Your task to perform on an android device: turn off translation in the chrome app Image 0: 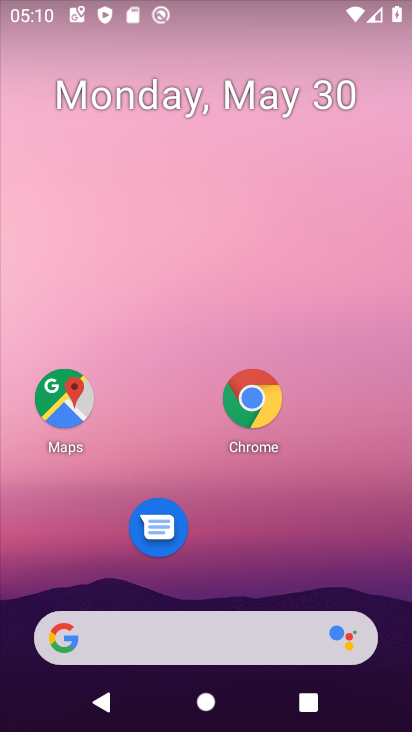
Step 0: click (248, 406)
Your task to perform on an android device: turn off translation in the chrome app Image 1: 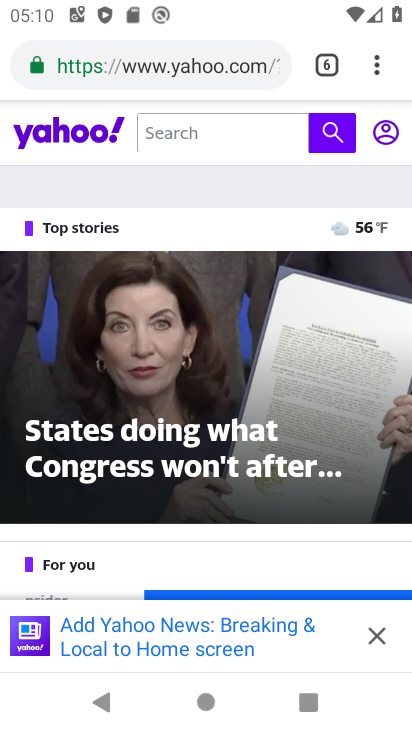
Step 1: click (380, 69)
Your task to perform on an android device: turn off translation in the chrome app Image 2: 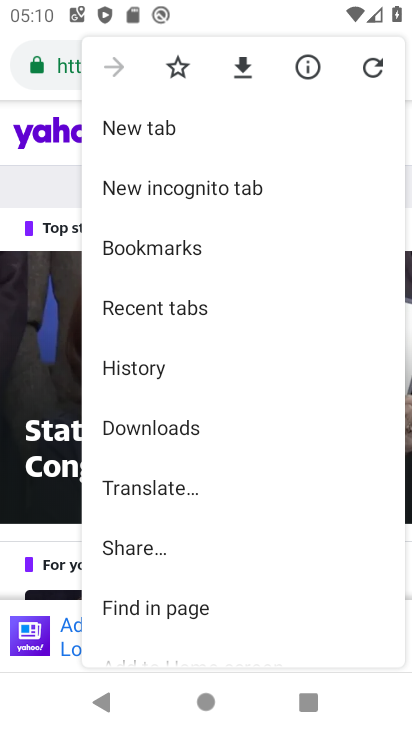
Step 2: drag from (148, 629) to (172, 219)
Your task to perform on an android device: turn off translation in the chrome app Image 3: 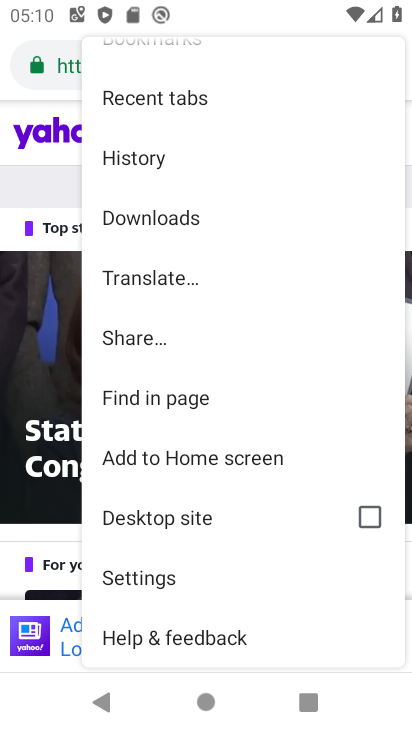
Step 3: click (139, 569)
Your task to perform on an android device: turn off translation in the chrome app Image 4: 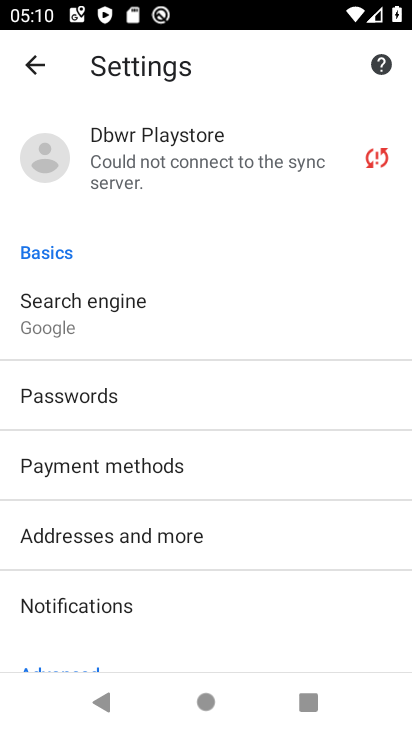
Step 4: drag from (179, 634) to (181, 157)
Your task to perform on an android device: turn off translation in the chrome app Image 5: 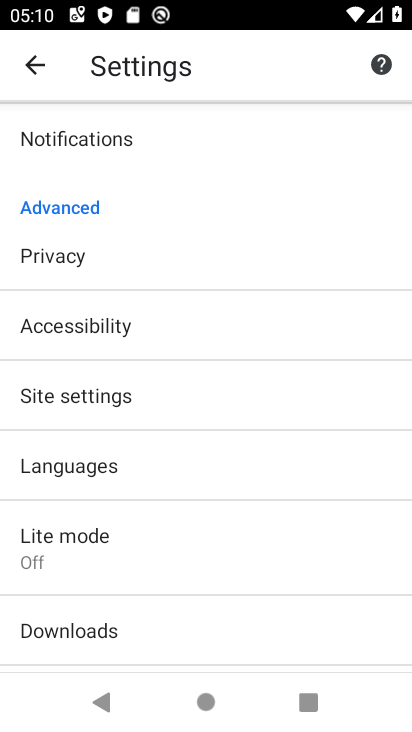
Step 5: click (71, 469)
Your task to perform on an android device: turn off translation in the chrome app Image 6: 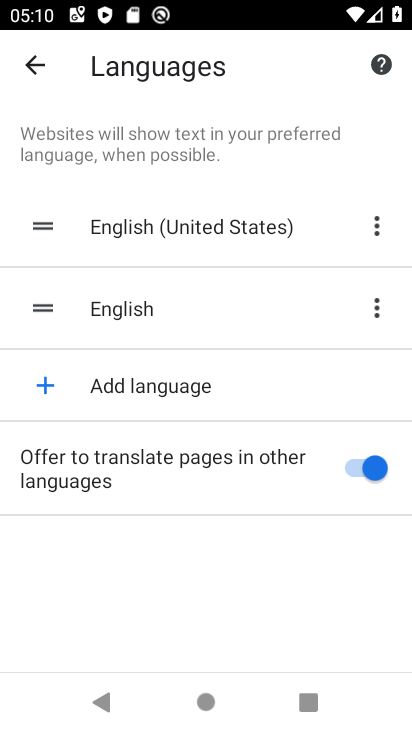
Step 6: click (356, 459)
Your task to perform on an android device: turn off translation in the chrome app Image 7: 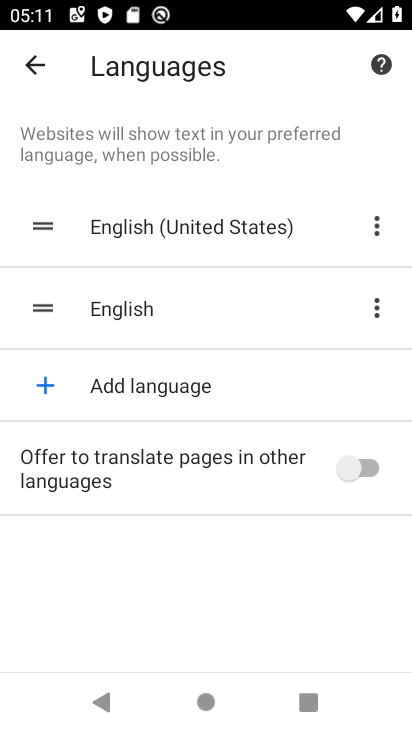
Step 7: task complete